Your task to perform on an android device: change text size in settings app Image 0: 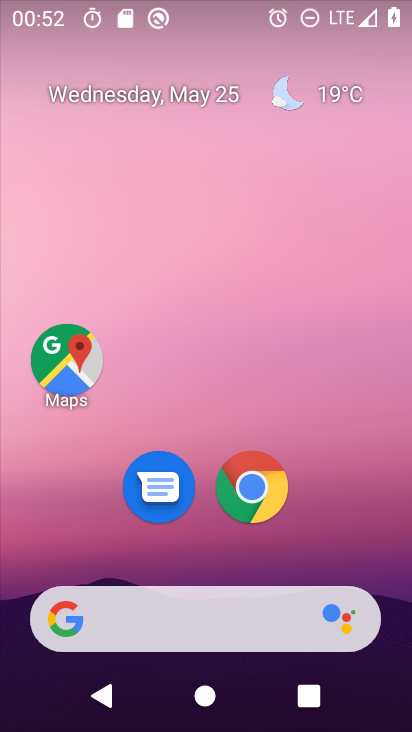
Step 0: drag from (338, 573) to (366, 11)
Your task to perform on an android device: change text size in settings app Image 1: 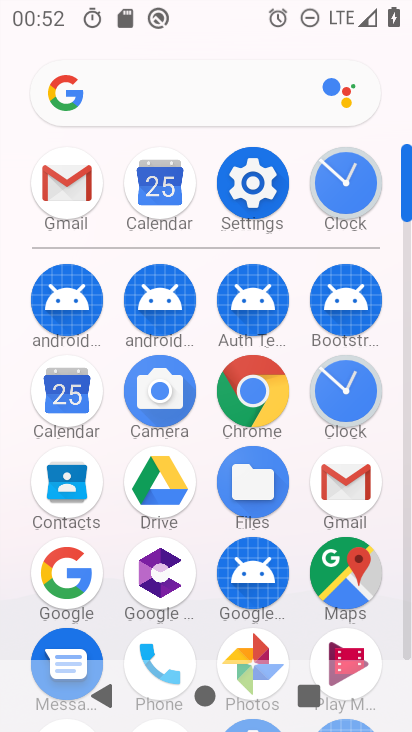
Step 1: click (250, 183)
Your task to perform on an android device: change text size in settings app Image 2: 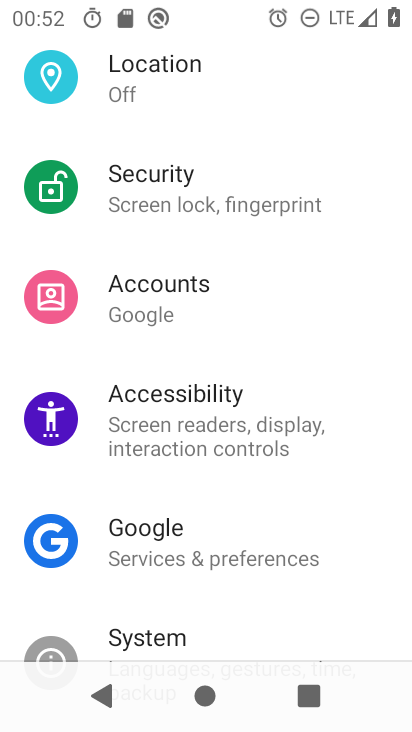
Step 2: drag from (234, 246) to (225, 491)
Your task to perform on an android device: change text size in settings app Image 3: 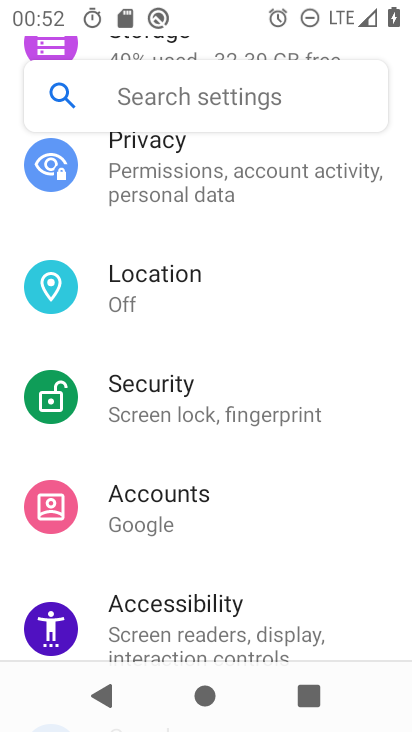
Step 3: drag from (220, 186) to (212, 496)
Your task to perform on an android device: change text size in settings app Image 4: 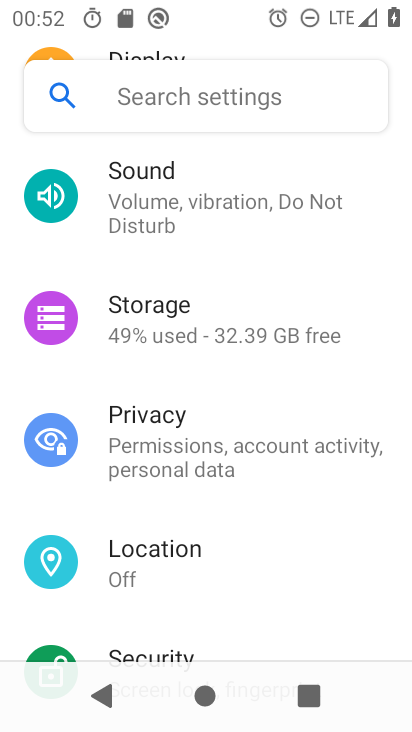
Step 4: drag from (191, 253) to (190, 444)
Your task to perform on an android device: change text size in settings app Image 5: 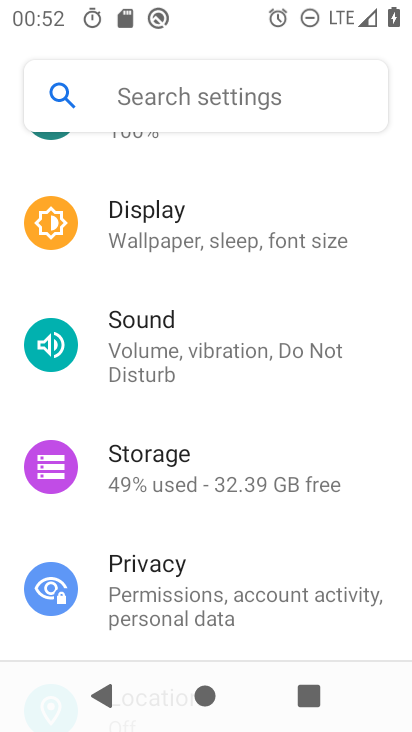
Step 5: click (148, 231)
Your task to perform on an android device: change text size in settings app Image 6: 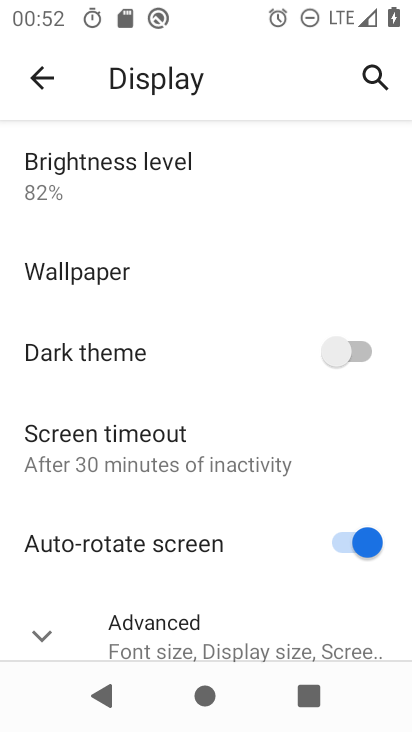
Step 6: click (38, 640)
Your task to perform on an android device: change text size in settings app Image 7: 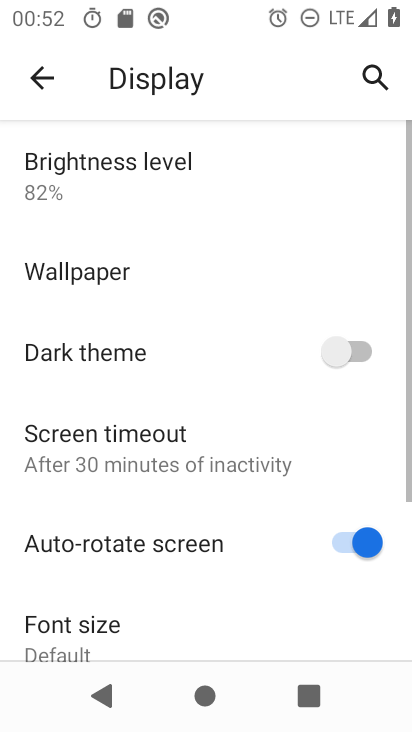
Step 7: drag from (123, 564) to (150, 291)
Your task to perform on an android device: change text size in settings app Image 8: 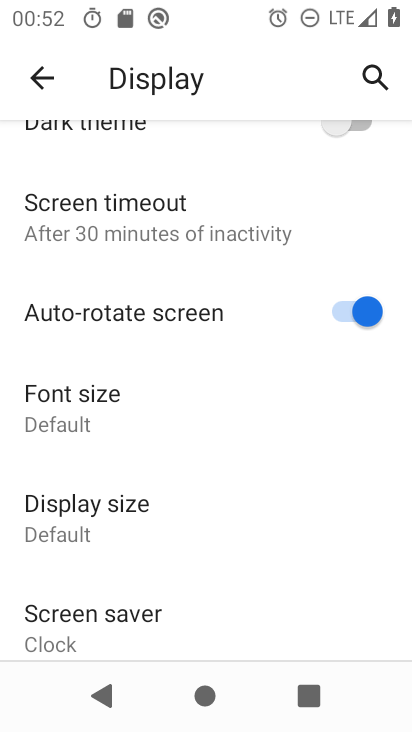
Step 8: click (58, 410)
Your task to perform on an android device: change text size in settings app Image 9: 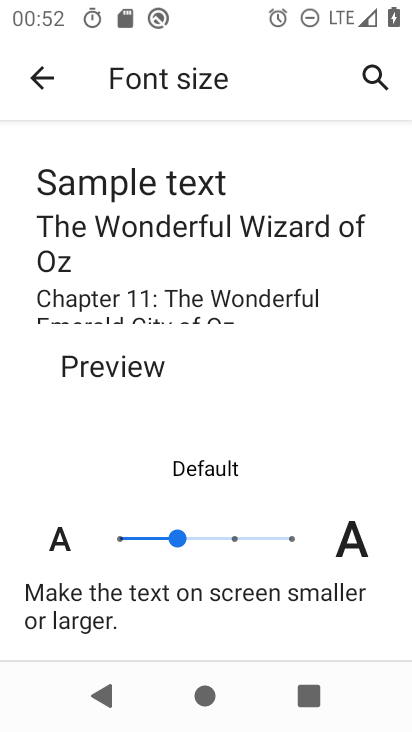
Step 9: click (123, 544)
Your task to perform on an android device: change text size in settings app Image 10: 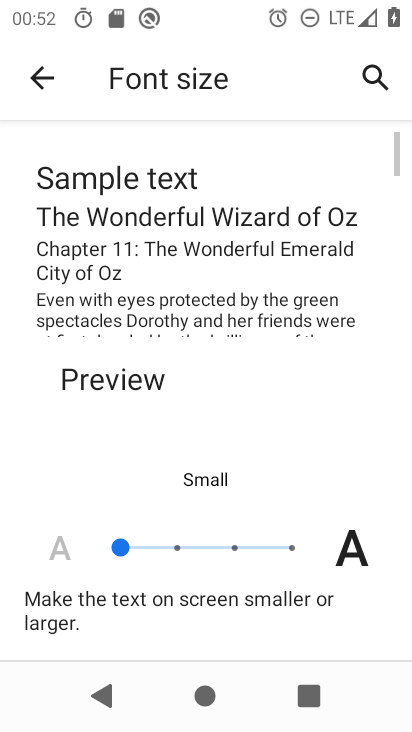
Step 10: task complete